Your task to perform on an android device: turn off location history Image 0: 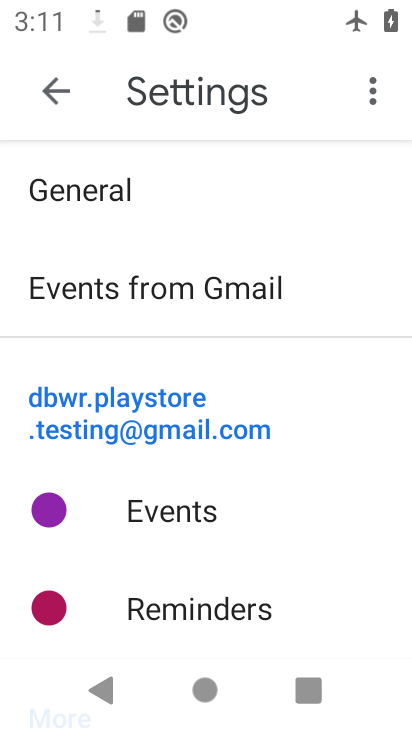
Step 0: drag from (300, 565) to (290, 280)
Your task to perform on an android device: turn off location history Image 1: 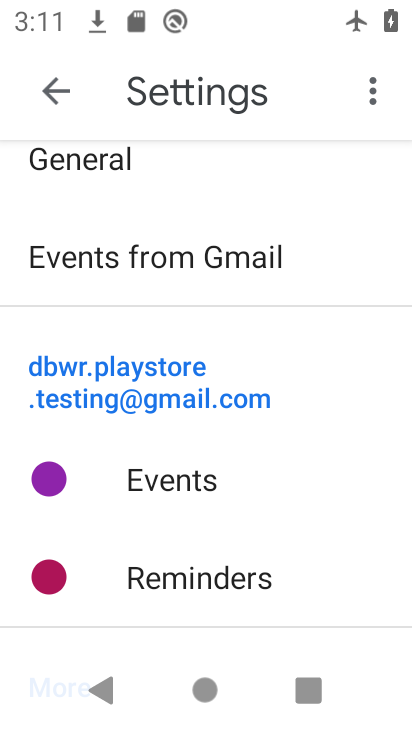
Step 1: press home button
Your task to perform on an android device: turn off location history Image 2: 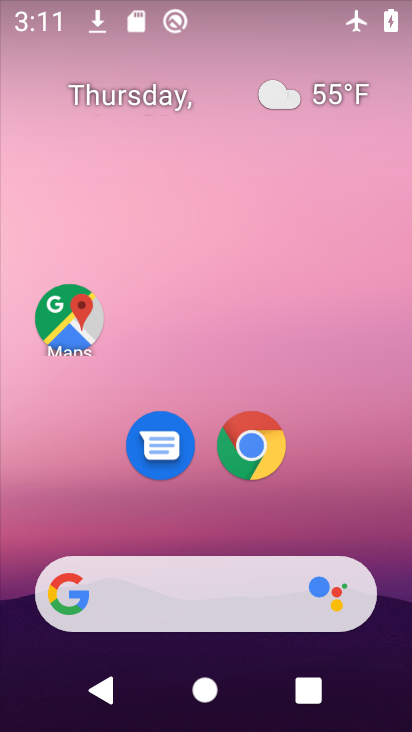
Step 2: drag from (345, 479) to (317, 205)
Your task to perform on an android device: turn off location history Image 3: 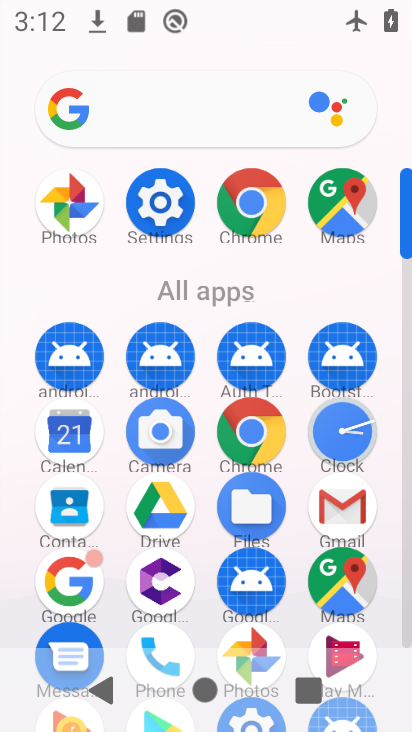
Step 3: click (167, 228)
Your task to perform on an android device: turn off location history Image 4: 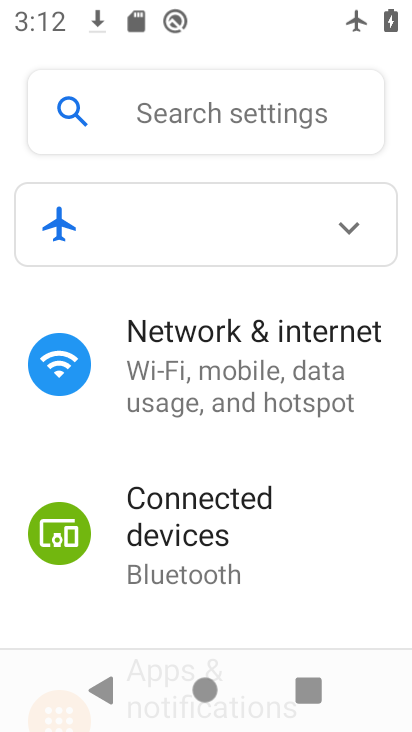
Step 4: drag from (243, 574) to (271, 251)
Your task to perform on an android device: turn off location history Image 5: 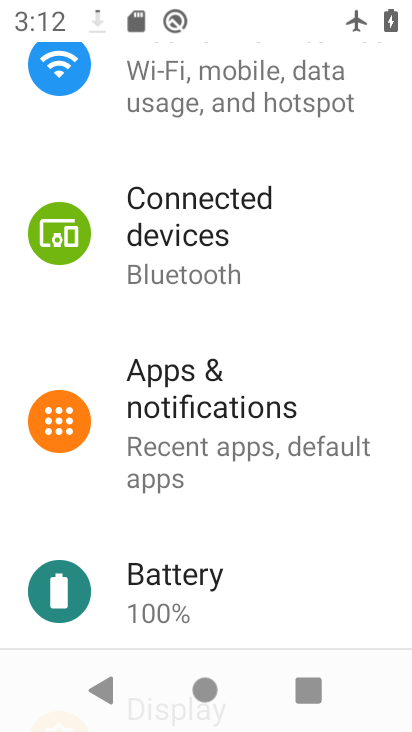
Step 5: drag from (295, 602) to (290, 265)
Your task to perform on an android device: turn off location history Image 6: 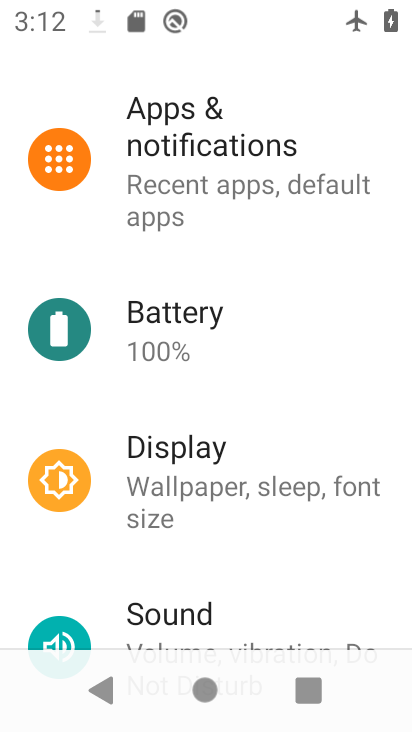
Step 6: drag from (256, 603) to (250, 201)
Your task to perform on an android device: turn off location history Image 7: 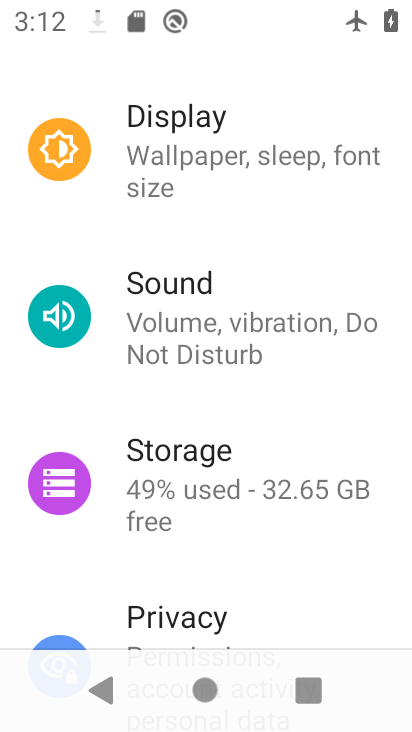
Step 7: drag from (293, 619) to (298, 259)
Your task to perform on an android device: turn off location history Image 8: 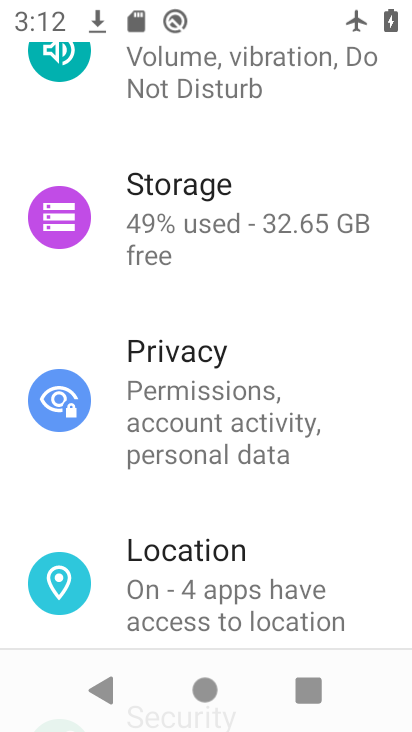
Step 8: drag from (323, 554) to (330, 181)
Your task to perform on an android device: turn off location history Image 9: 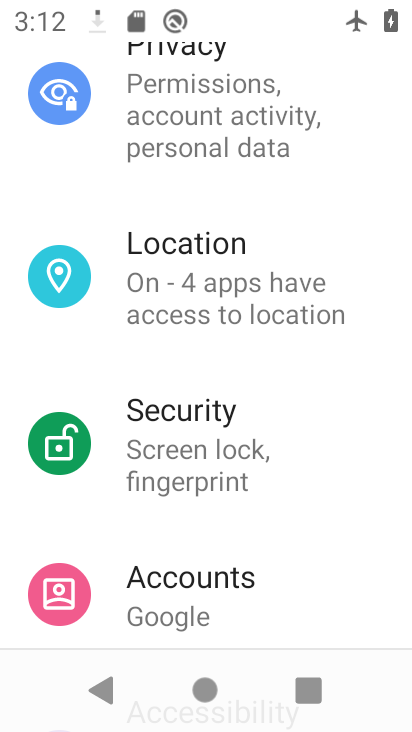
Step 9: click (286, 308)
Your task to perform on an android device: turn off location history Image 10: 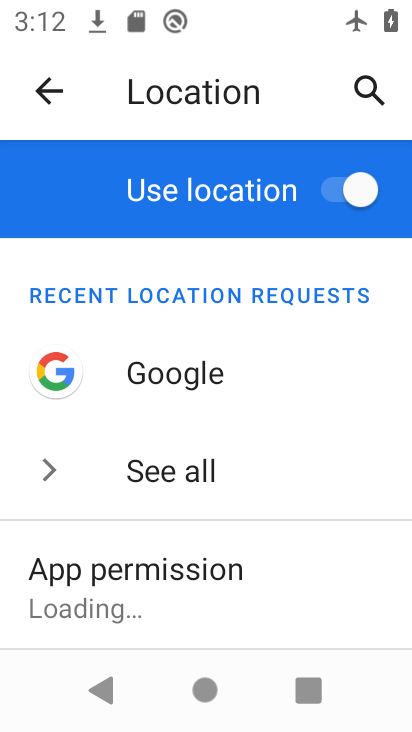
Step 10: drag from (291, 585) to (282, 257)
Your task to perform on an android device: turn off location history Image 11: 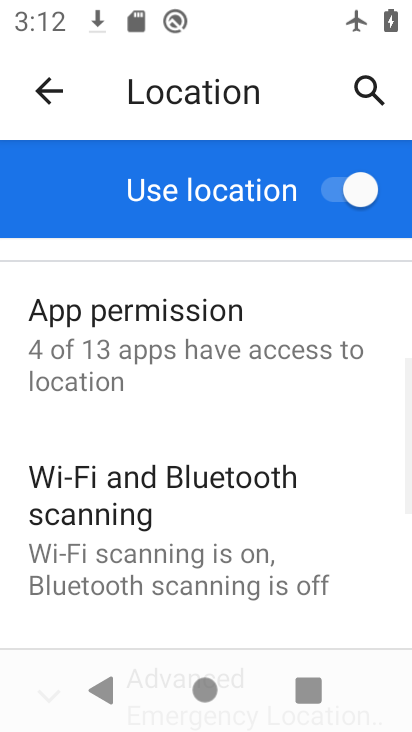
Step 11: drag from (334, 606) to (321, 305)
Your task to perform on an android device: turn off location history Image 12: 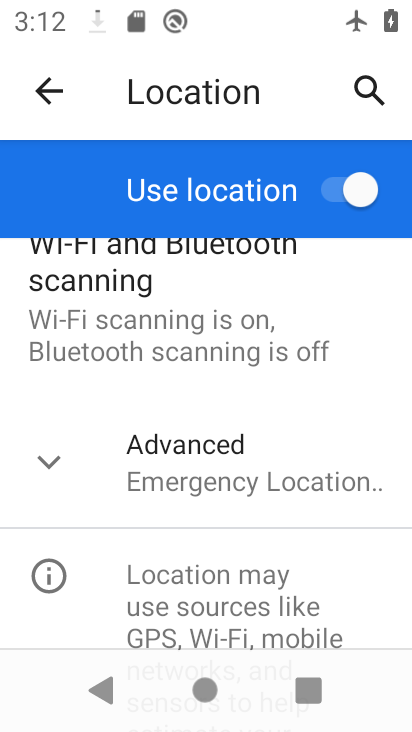
Step 12: click (45, 462)
Your task to perform on an android device: turn off location history Image 13: 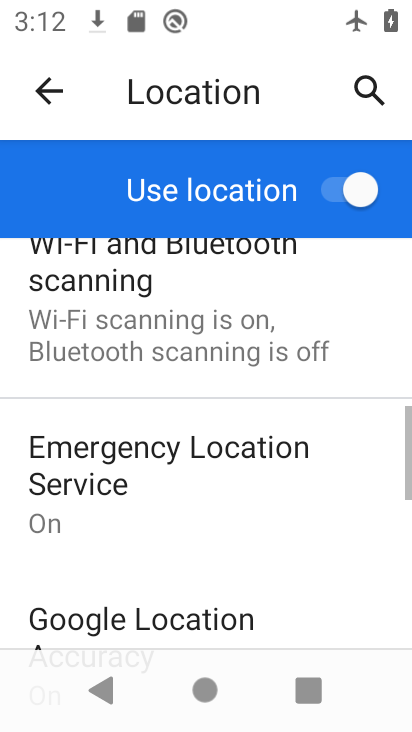
Step 13: task complete